Your task to perform on an android device: Go to display settings Image 0: 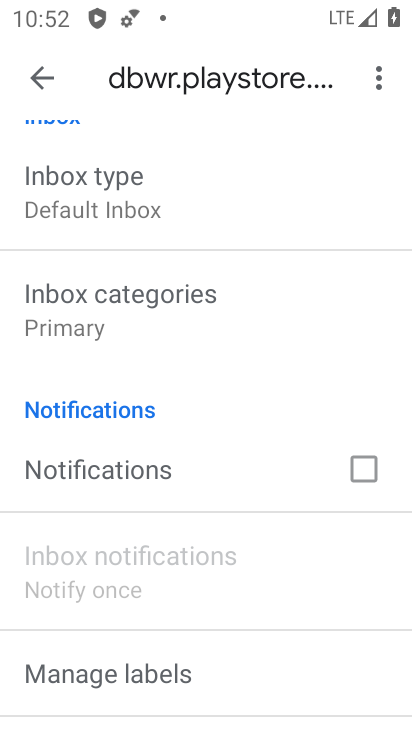
Step 0: press home button
Your task to perform on an android device: Go to display settings Image 1: 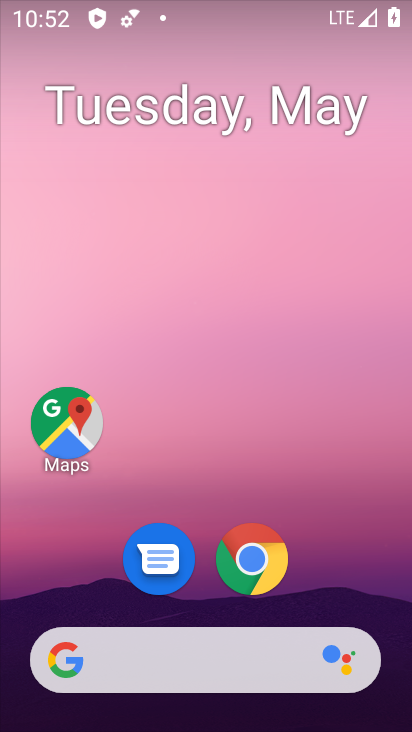
Step 1: drag from (384, 592) to (352, 159)
Your task to perform on an android device: Go to display settings Image 2: 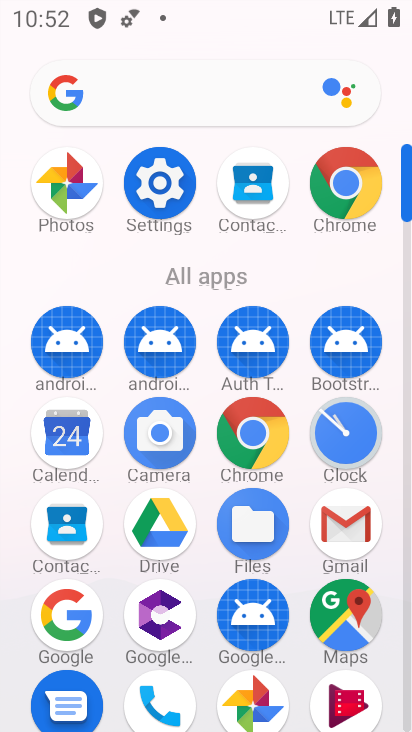
Step 2: click (154, 195)
Your task to perform on an android device: Go to display settings Image 3: 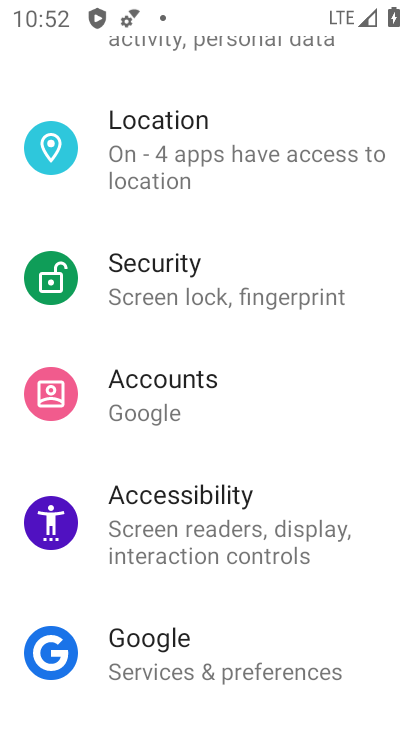
Step 3: drag from (244, 210) to (249, 586)
Your task to perform on an android device: Go to display settings Image 4: 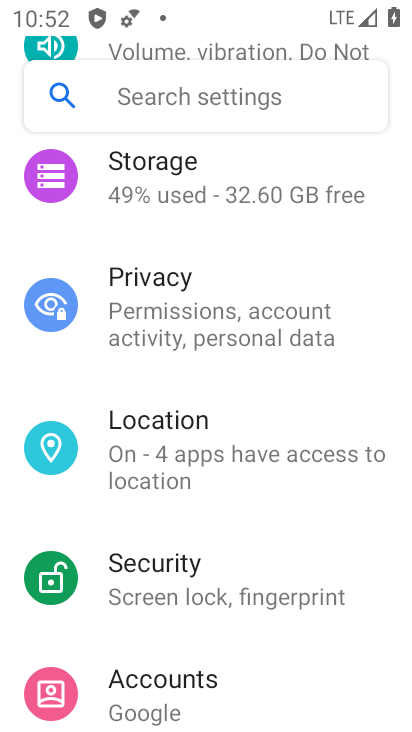
Step 4: drag from (214, 245) to (217, 603)
Your task to perform on an android device: Go to display settings Image 5: 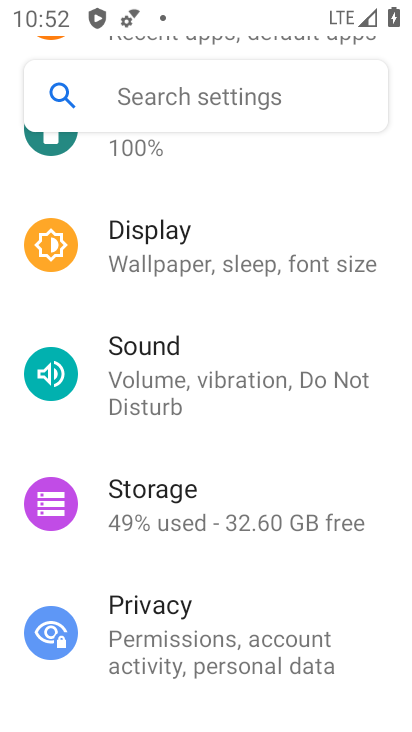
Step 5: click (245, 228)
Your task to perform on an android device: Go to display settings Image 6: 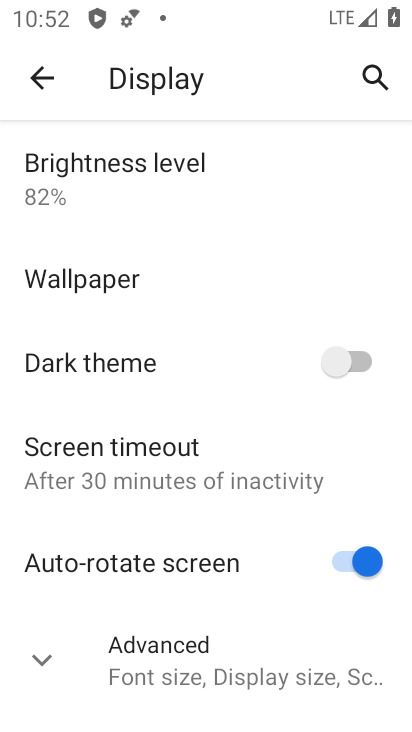
Step 6: task complete